Your task to perform on an android device: toggle pop-ups in chrome Image 0: 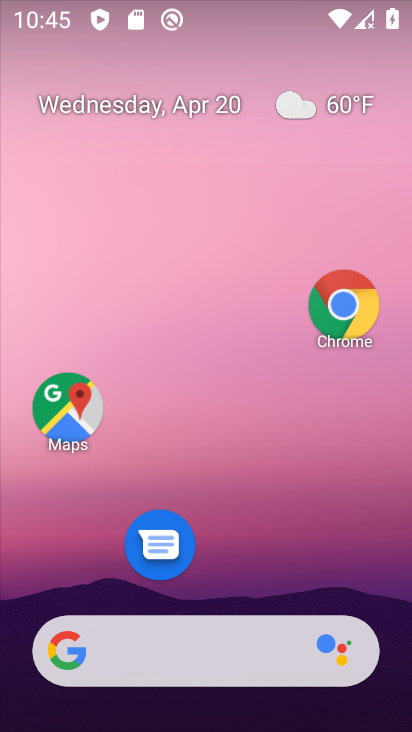
Step 0: click (361, 318)
Your task to perform on an android device: toggle pop-ups in chrome Image 1: 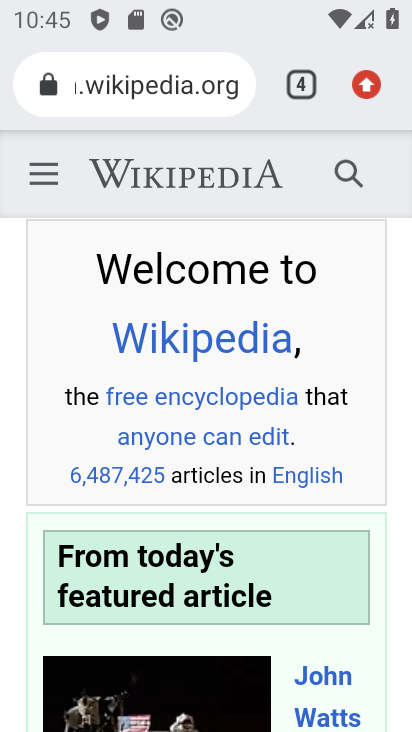
Step 1: click (357, 91)
Your task to perform on an android device: toggle pop-ups in chrome Image 2: 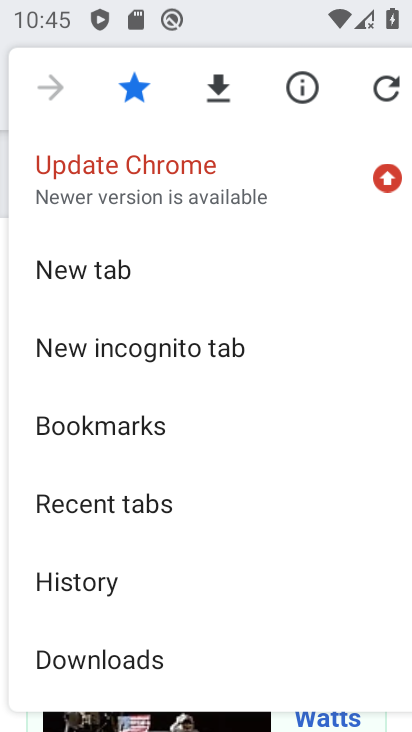
Step 2: drag from (187, 541) to (184, 383)
Your task to perform on an android device: toggle pop-ups in chrome Image 3: 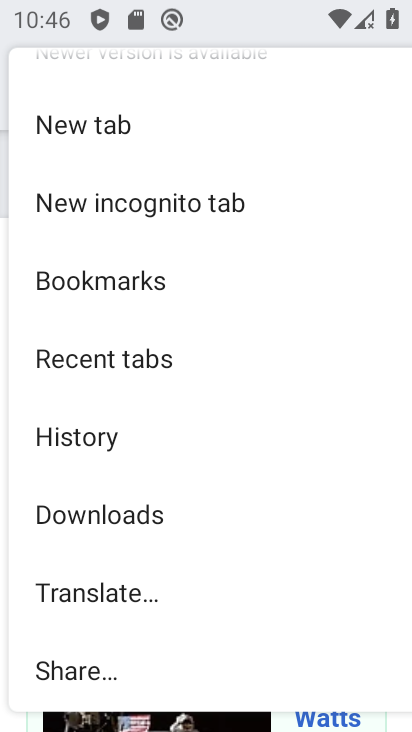
Step 3: drag from (148, 600) to (145, 382)
Your task to perform on an android device: toggle pop-ups in chrome Image 4: 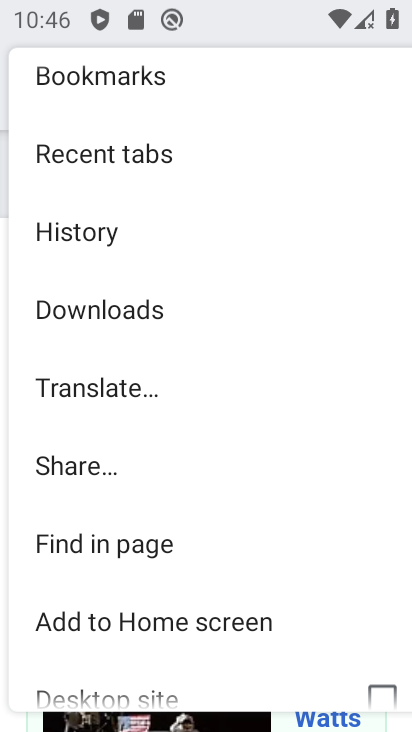
Step 4: drag from (133, 524) to (129, 354)
Your task to perform on an android device: toggle pop-ups in chrome Image 5: 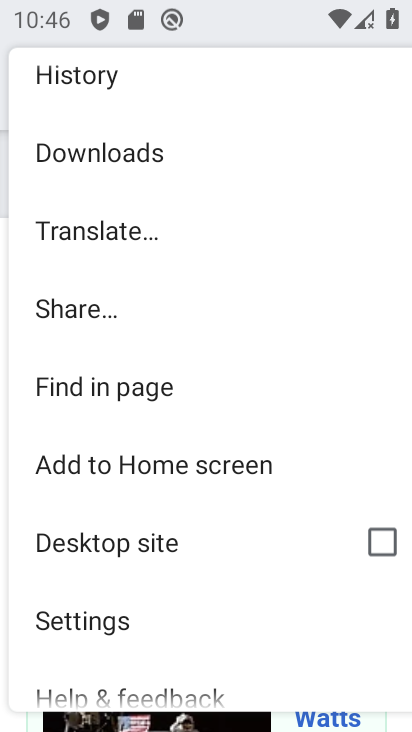
Step 5: click (135, 630)
Your task to perform on an android device: toggle pop-ups in chrome Image 6: 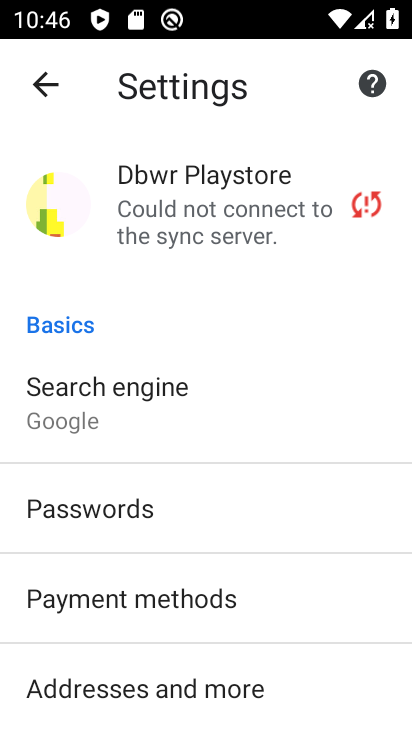
Step 6: drag from (136, 608) to (193, 292)
Your task to perform on an android device: toggle pop-ups in chrome Image 7: 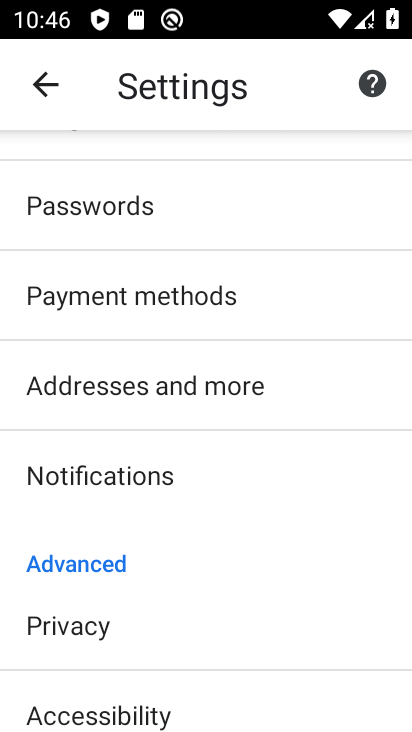
Step 7: drag from (173, 591) to (221, 301)
Your task to perform on an android device: toggle pop-ups in chrome Image 8: 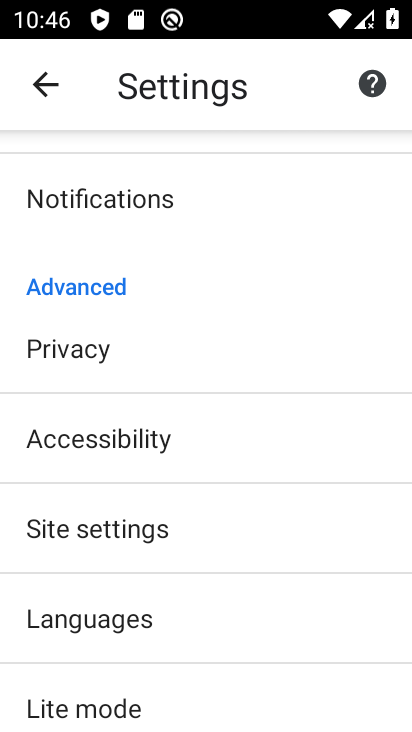
Step 8: drag from (186, 559) to (217, 385)
Your task to perform on an android device: toggle pop-ups in chrome Image 9: 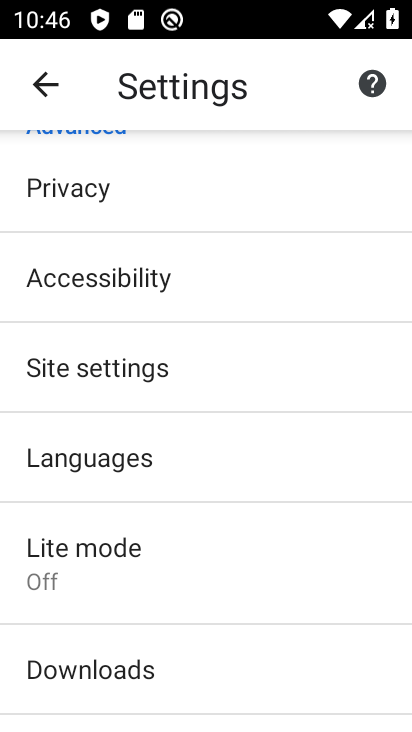
Step 9: click (140, 367)
Your task to perform on an android device: toggle pop-ups in chrome Image 10: 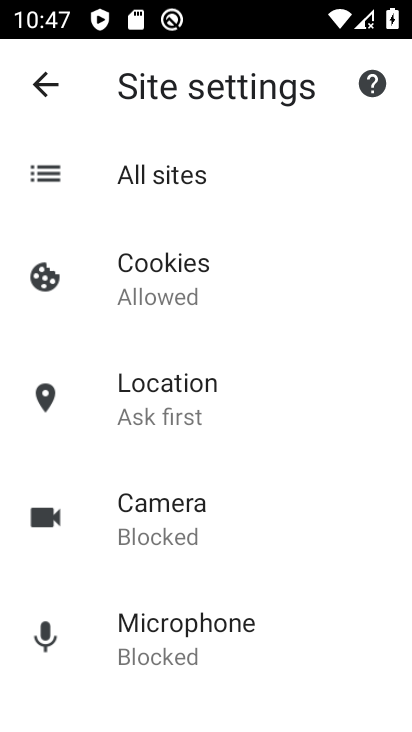
Step 10: drag from (199, 505) to (219, 372)
Your task to perform on an android device: toggle pop-ups in chrome Image 11: 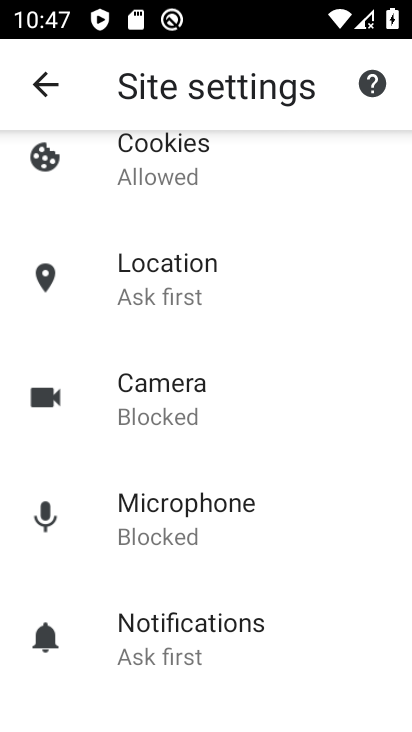
Step 11: drag from (226, 545) to (265, 215)
Your task to perform on an android device: toggle pop-ups in chrome Image 12: 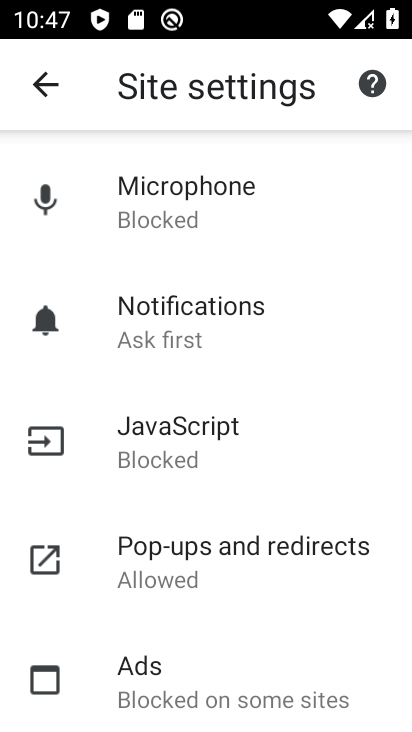
Step 12: click (221, 569)
Your task to perform on an android device: toggle pop-ups in chrome Image 13: 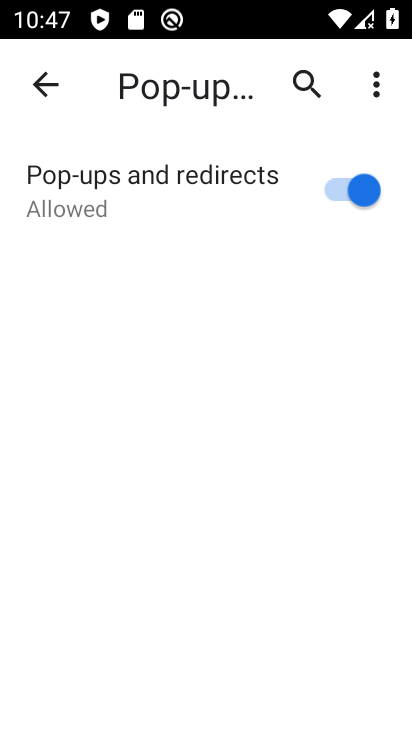
Step 13: click (339, 179)
Your task to perform on an android device: toggle pop-ups in chrome Image 14: 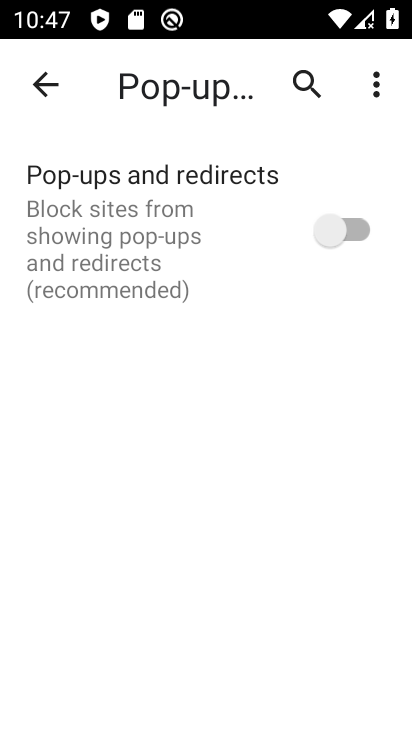
Step 14: task complete